Your task to perform on an android device: Search for alienware aurora on target.com, select the first entry, and add it to the cart. Image 0: 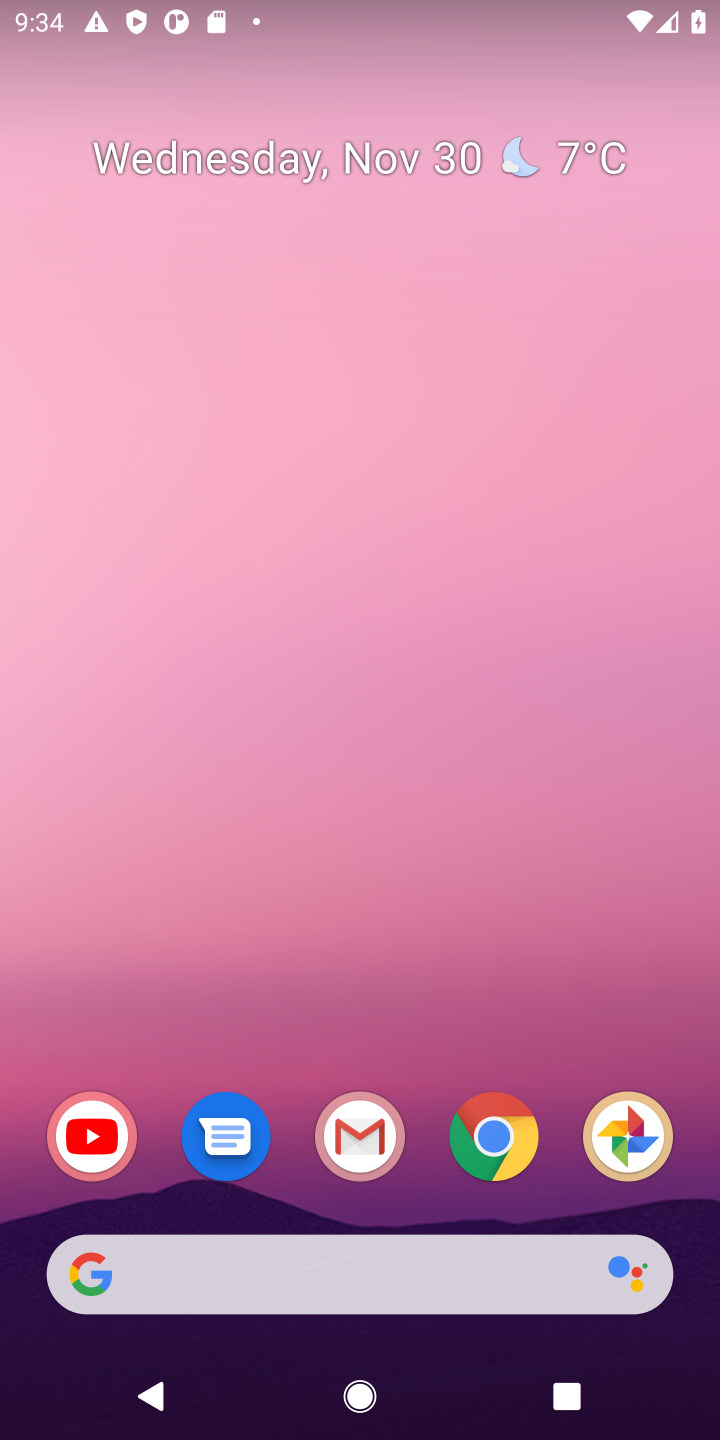
Step 0: click (486, 1151)
Your task to perform on an android device: Search for alienware aurora on target.com, select the first entry, and add it to the cart. Image 1: 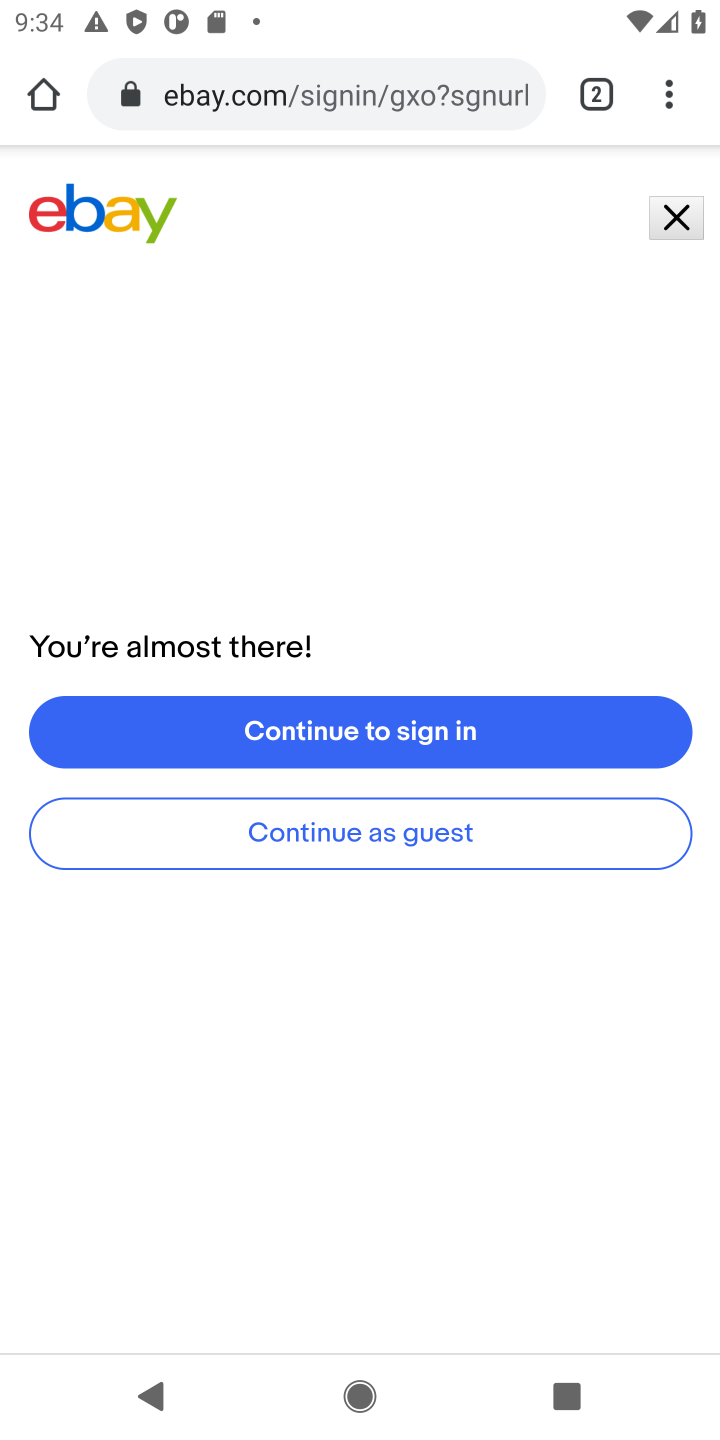
Step 1: click (217, 96)
Your task to perform on an android device: Search for alienware aurora on target.com, select the first entry, and add it to the cart. Image 2: 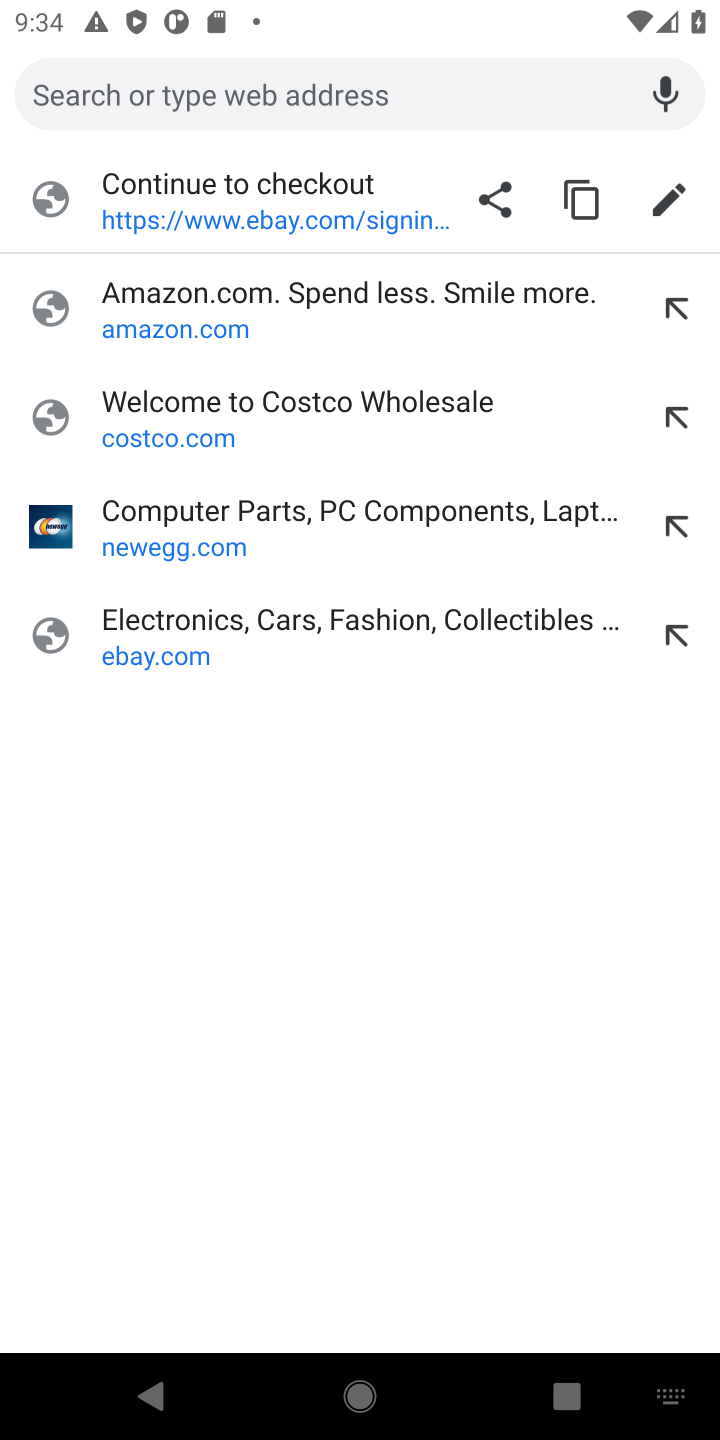
Step 2: type "target.com"
Your task to perform on an android device: Search for alienware aurora on target.com, select the first entry, and add it to the cart. Image 3: 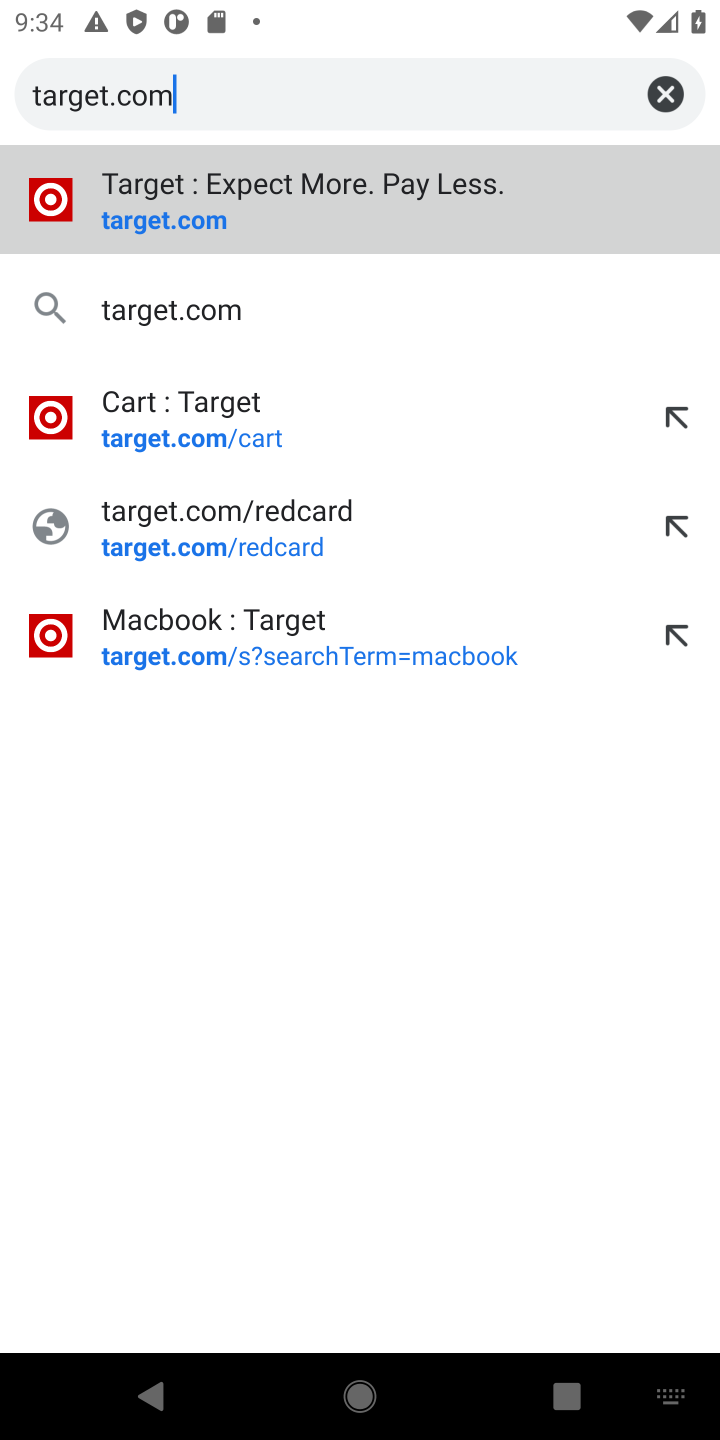
Step 3: click (168, 225)
Your task to perform on an android device: Search for alienware aurora on target.com, select the first entry, and add it to the cart. Image 4: 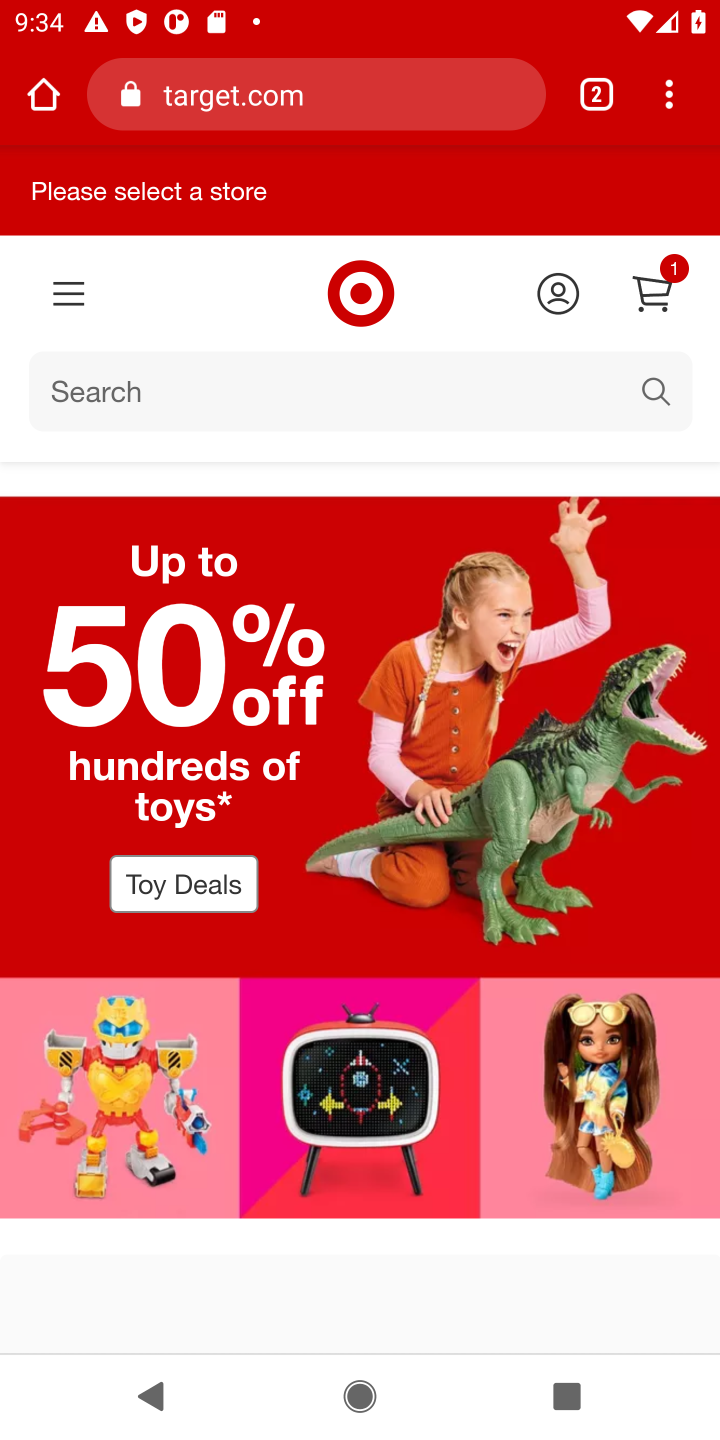
Step 4: click (43, 395)
Your task to perform on an android device: Search for alienware aurora on target.com, select the first entry, and add it to the cart. Image 5: 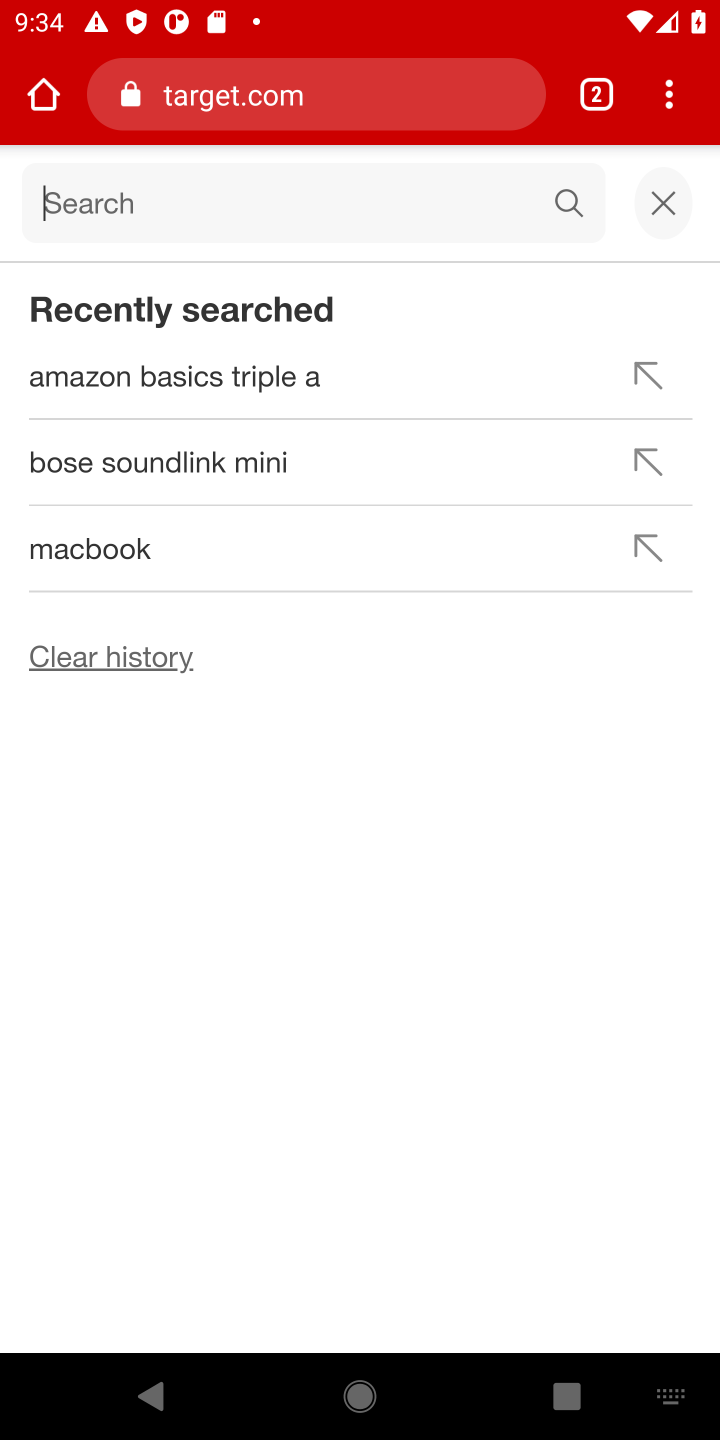
Step 5: type "alienware aurora "
Your task to perform on an android device: Search for alienware aurora on target.com, select the first entry, and add it to the cart. Image 6: 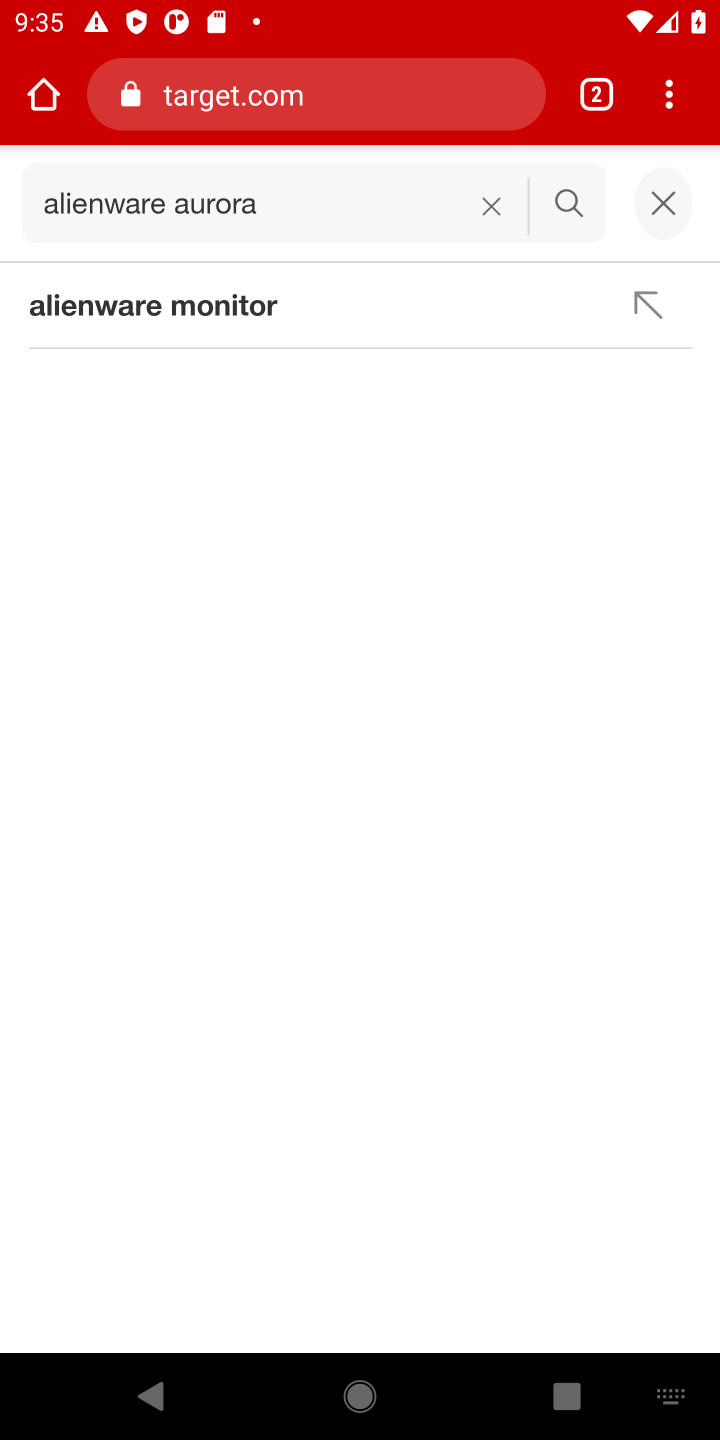
Step 6: click (569, 214)
Your task to perform on an android device: Search for alienware aurora on target.com, select the first entry, and add it to the cart. Image 7: 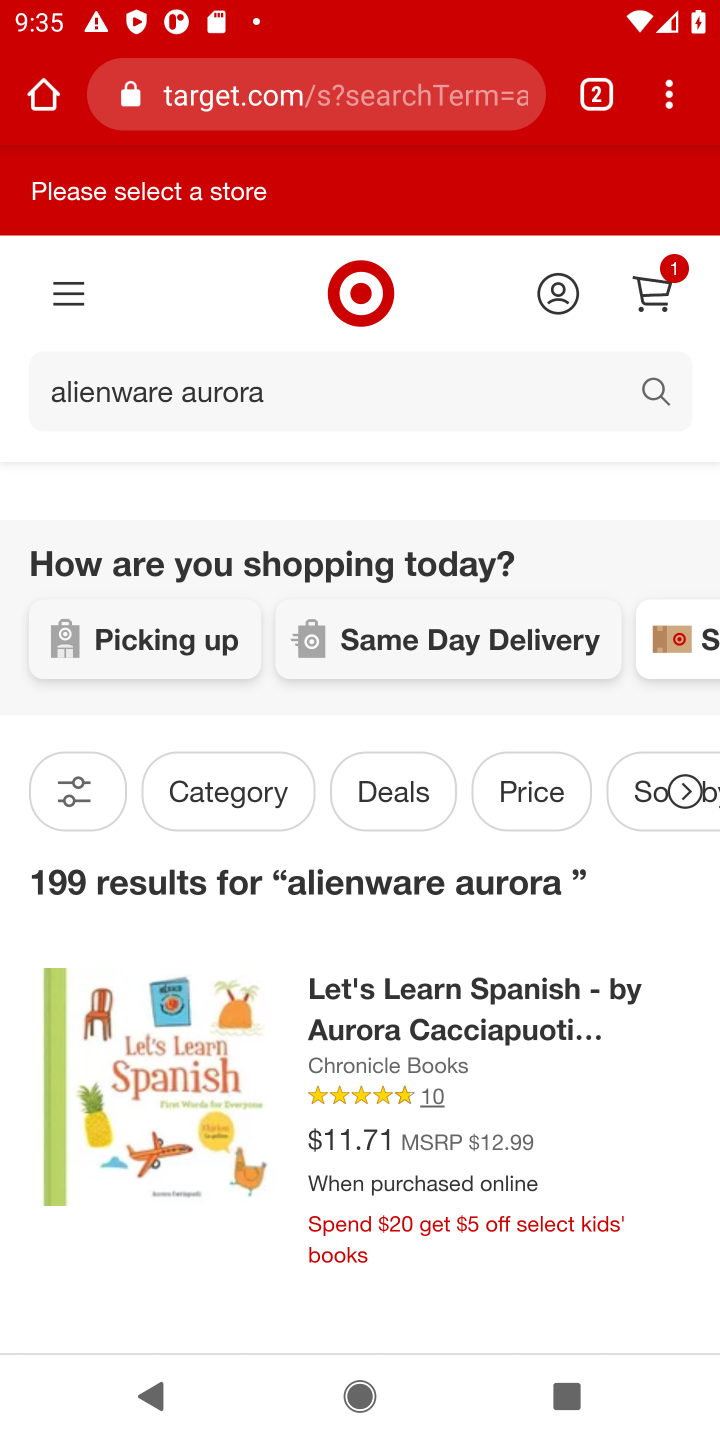
Step 7: task complete